Your task to perform on an android device: turn on priority inbox in the gmail app Image 0: 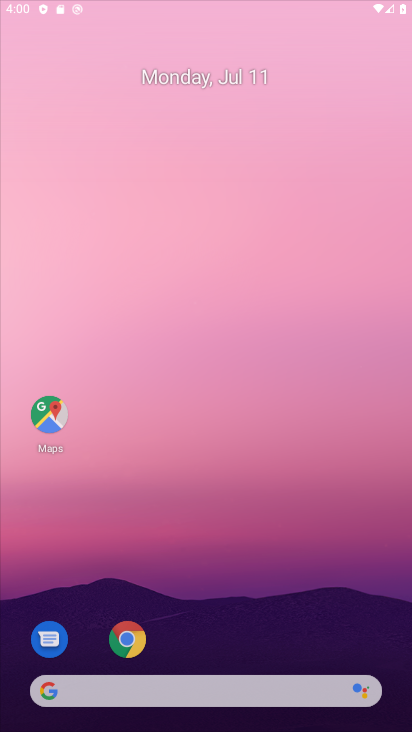
Step 0: press home button
Your task to perform on an android device: turn on priority inbox in the gmail app Image 1: 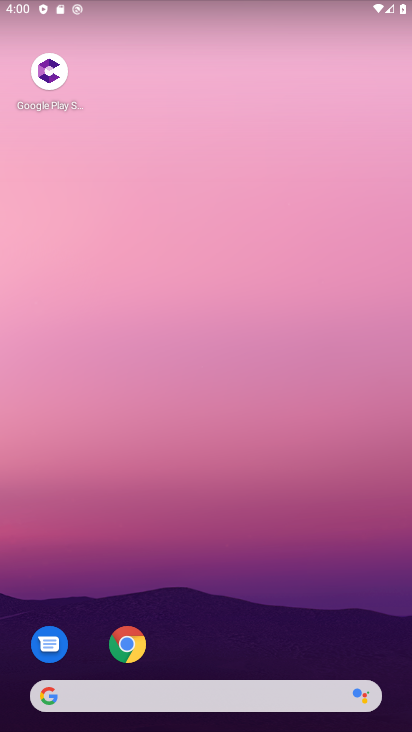
Step 1: drag from (232, 658) to (238, 200)
Your task to perform on an android device: turn on priority inbox in the gmail app Image 2: 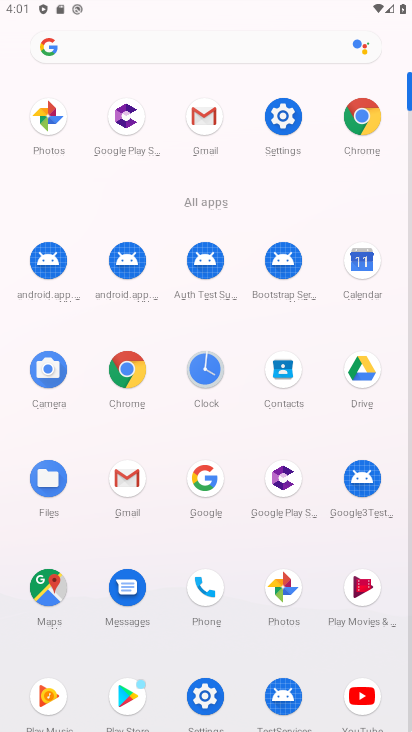
Step 2: click (209, 128)
Your task to perform on an android device: turn on priority inbox in the gmail app Image 3: 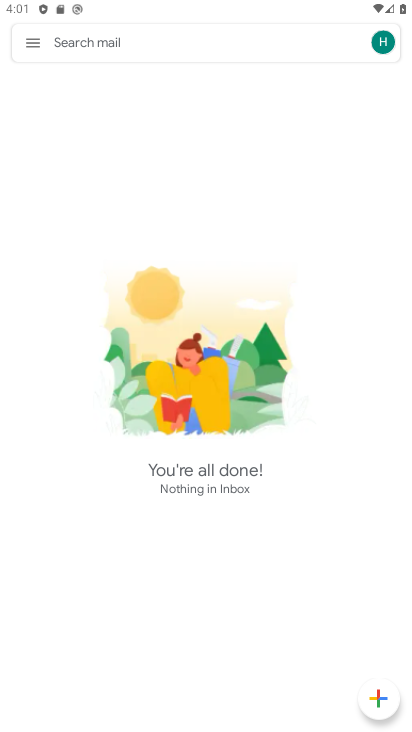
Step 3: click (21, 37)
Your task to perform on an android device: turn on priority inbox in the gmail app Image 4: 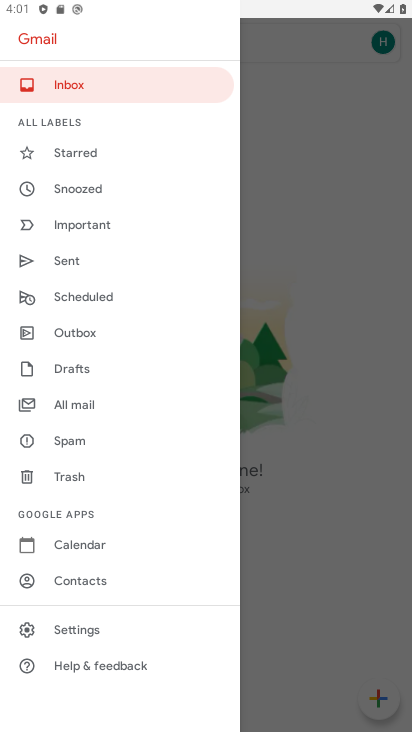
Step 4: click (84, 629)
Your task to perform on an android device: turn on priority inbox in the gmail app Image 5: 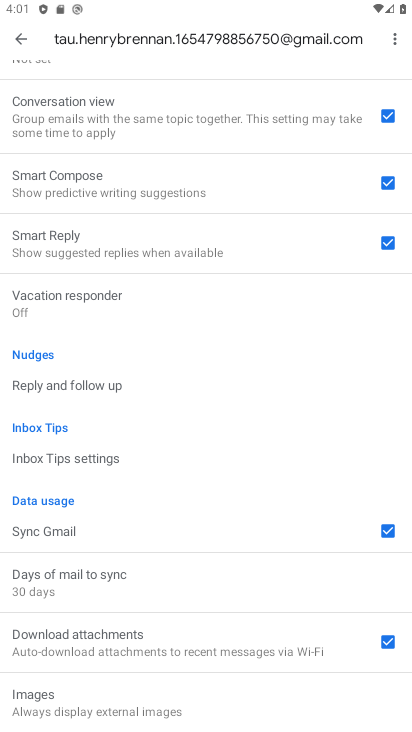
Step 5: drag from (208, 460) to (237, 232)
Your task to perform on an android device: turn on priority inbox in the gmail app Image 6: 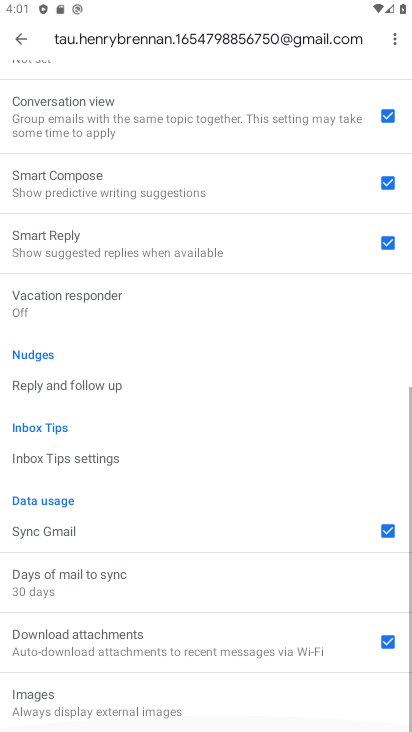
Step 6: drag from (202, 177) to (202, 598)
Your task to perform on an android device: turn on priority inbox in the gmail app Image 7: 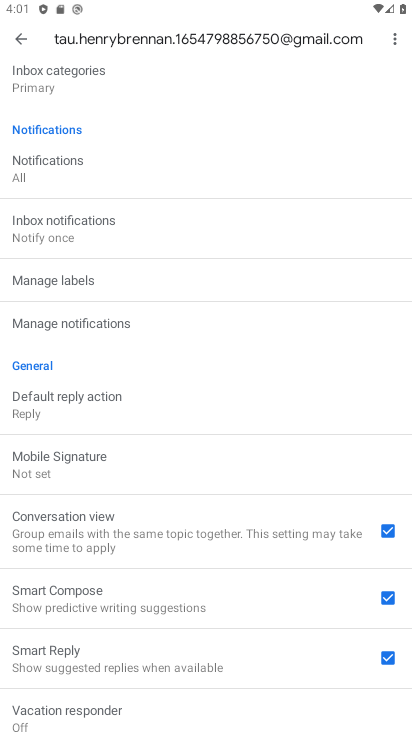
Step 7: drag from (111, 195) to (130, 443)
Your task to perform on an android device: turn on priority inbox in the gmail app Image 8: 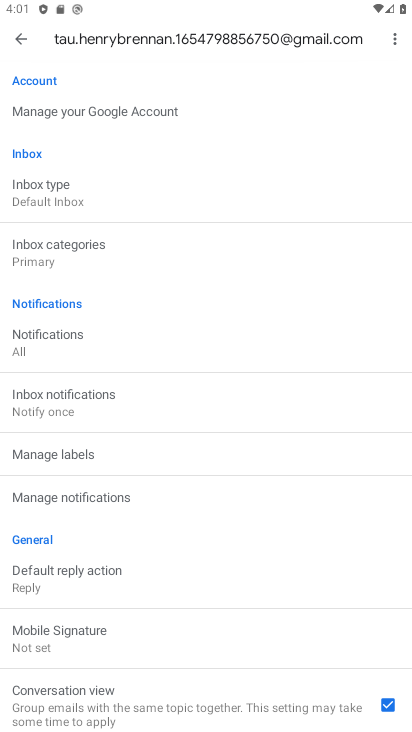
Step 8: click (70, 212)
Your task to perform on an android device: turn on priority inbox in the gmail app Image 9: 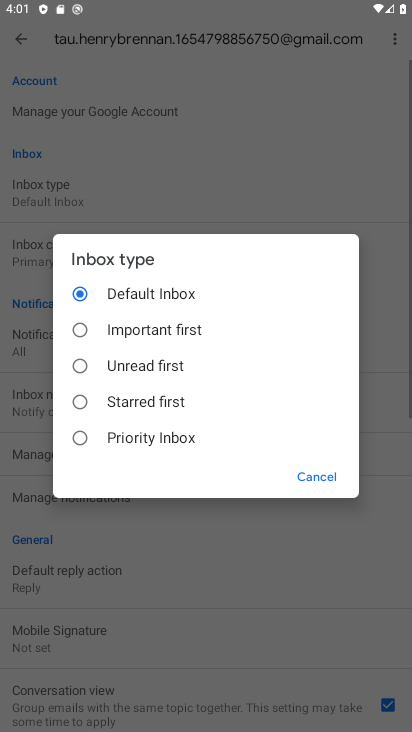
Step 9: click (102, 431)
Your task to perform on an android device: turn on priority inbox in the gmail app Image 10: 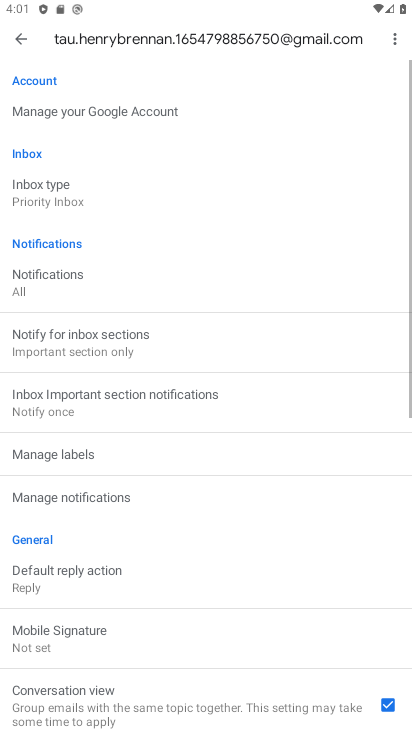
Step 10: task complete